Your task to perform on an android device: visit the assistant section in the google photos Image 0: 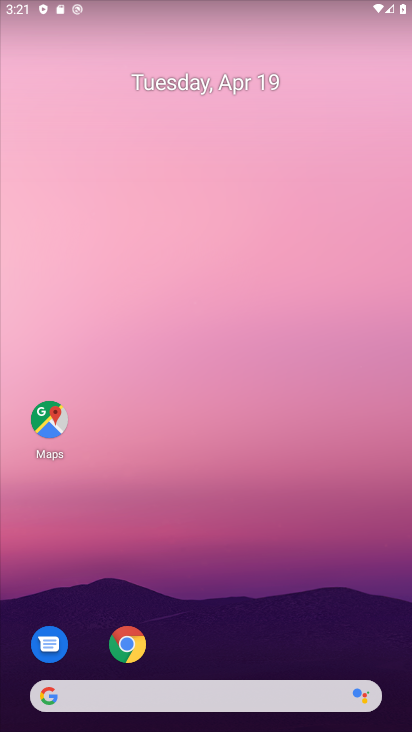
Step 0: drag from (211, 377) to (268, 159)
Your task to perform on an android device: visit the assistant section in the google photos Image 1: 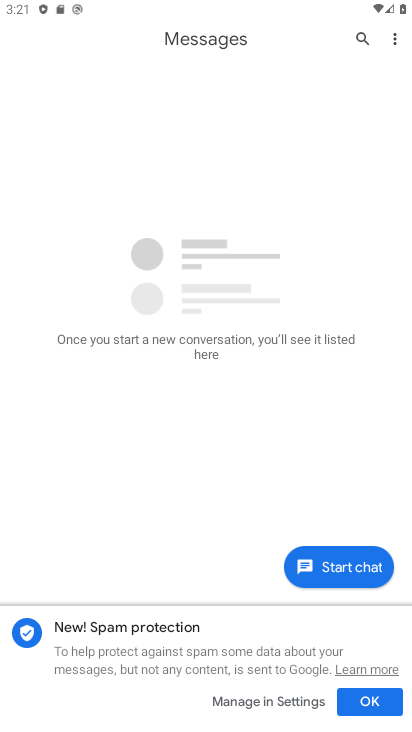
Step 1: press back button
Your task to perform on an android device: visit the assistant section in the google photos Image 2: 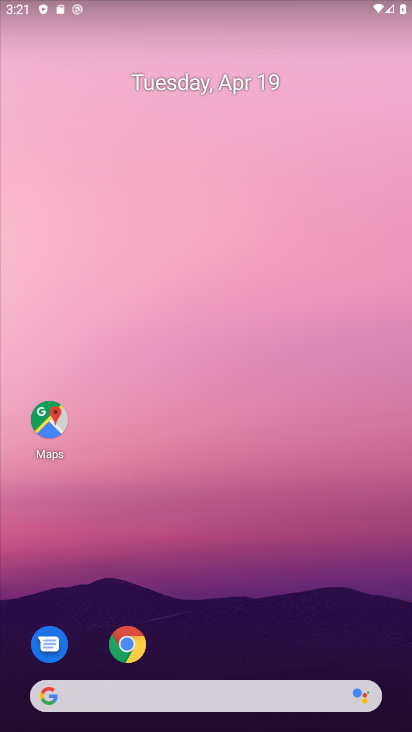
Step 2: drag from (211, 529) to (379, 46)
Your task to perform on an android device: visit the assistant section in the google photos Image 3: 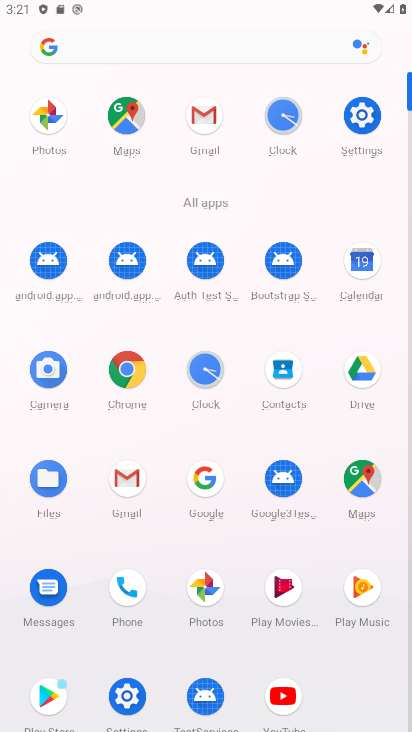
Step 3: click (196, 601)
Your task to perform on an android device: visit the assistant section in the google photos Image 4: 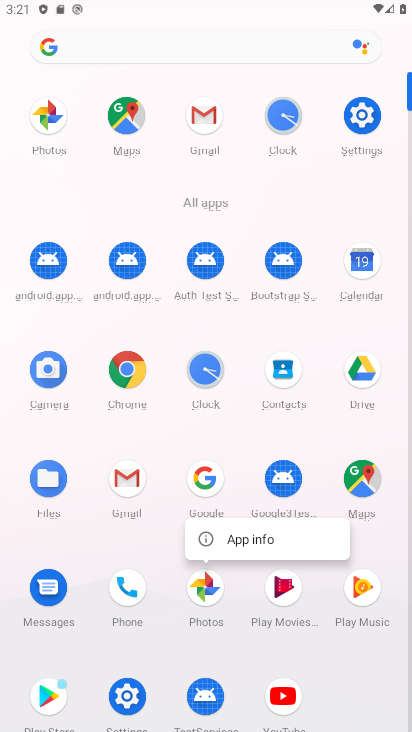
Step 4: click (199, 592)
Your task to perform on an android device: visit the assistant section in the google photos Image 5: 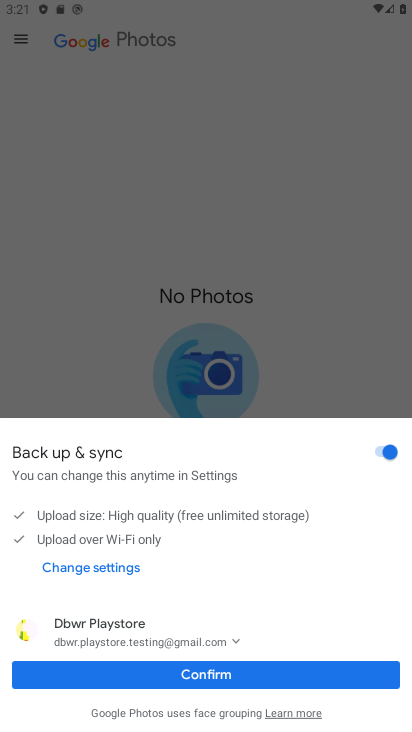
Step 5: click (210, 669)
Your task to perform on an android device: visit the assistant section in the google photos Image 6: 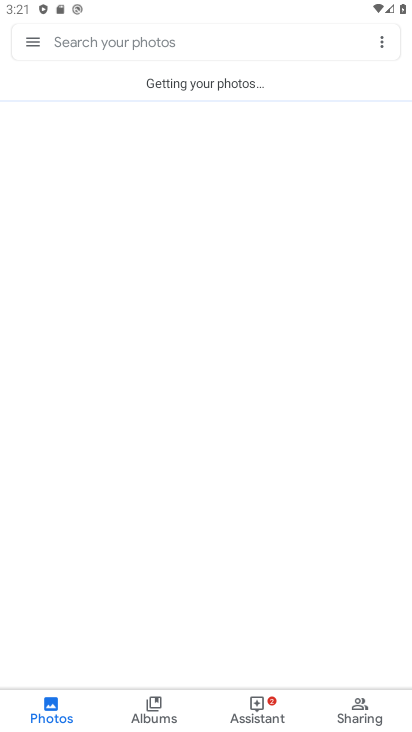
Step 6: click (280, 715)
Your task to perform on an android device: visit the assistant section in the google photos Image 7: 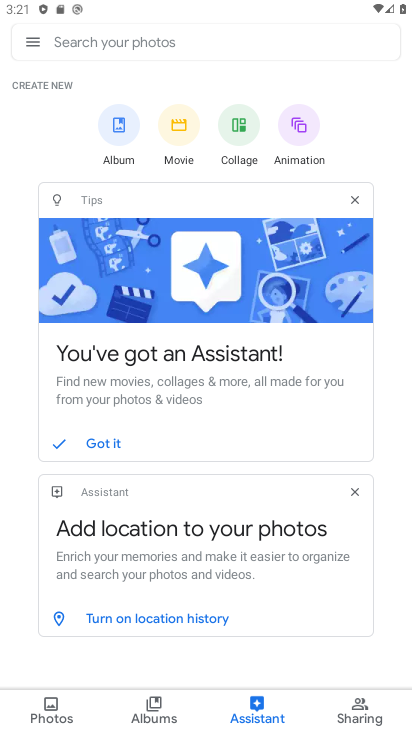
Step 7: task complete